Your task to perform on an android device: star an email in the gmail app Image 0: 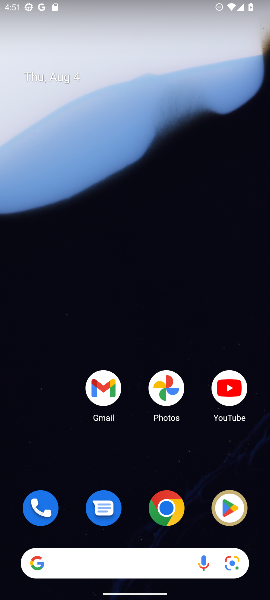
Step 0: drag from (118, 544) to (217, 103)
Your task to perform on an android device: star an email in the gmail app Image 1: 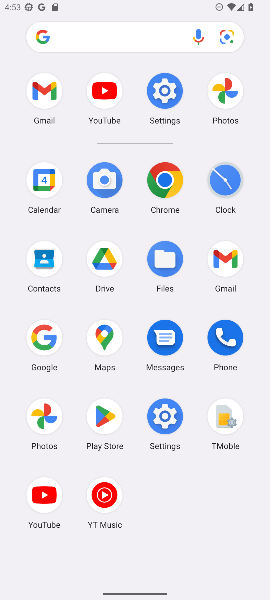
Step 1: click (163, 180)
Your task to perform on an android device: star an email in the gmail app Image 2: 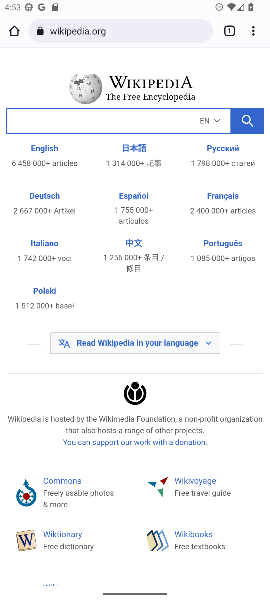
Step 2: click (95, 173)
Your task to perform on an android device: star an email in the gmail app Image 3: 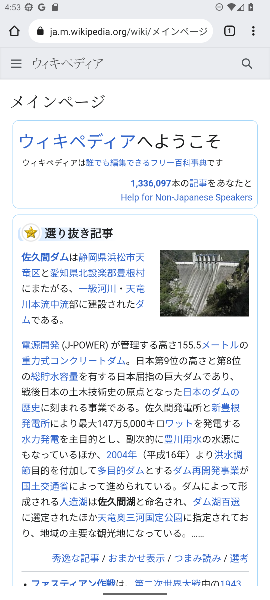
Step 3: drag from (62, 462) to (125, 69)
Your task to perform on an android device: star an email in the gmail app Image 4: 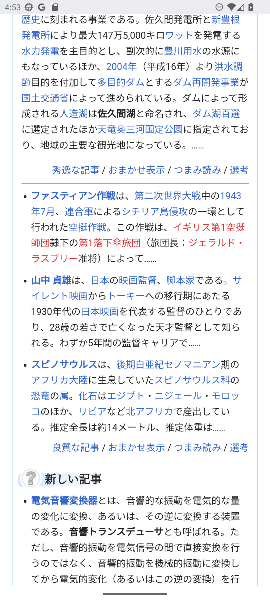
Step 4: drag from (115, 218) to (247, 573)
Your task to perform on an android device: star an email in the gmail app Image 5: 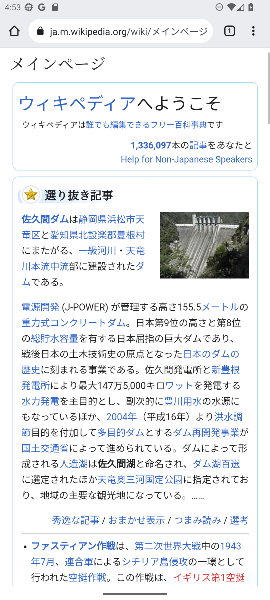
Step 5: drag from (117, 531) to (154, 99)
Your task to perform on an android device: star an email in the gmail app Image 6: 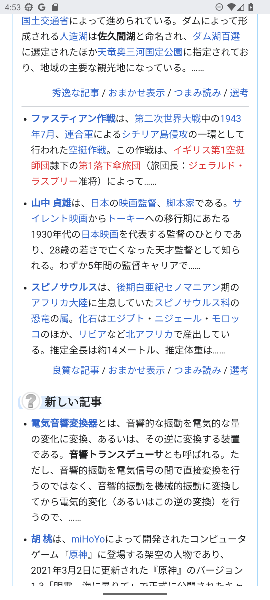
Step 6: drag from (184, 146) to (182, 593)
Your task to perform on an android device: star an email in the gmail app Image 7: 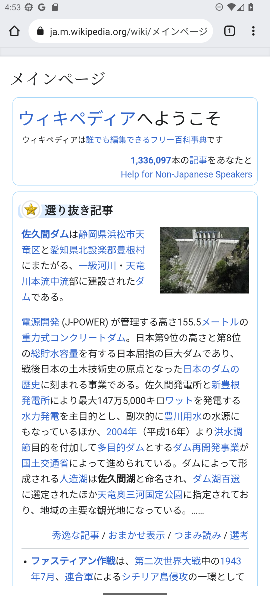
Step 7: click (152, 28)
Your task to perform on an android device: star an email in the gmail app Image 8: 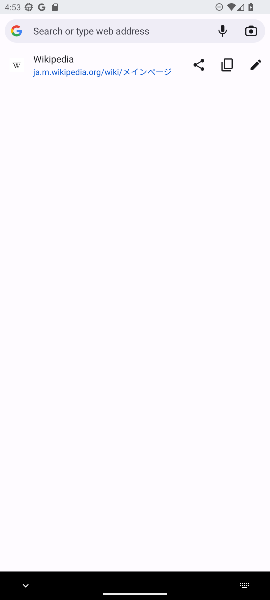
Step 8: press home button
Your task to perform on an android device: star an email in the gmail app Image 9: 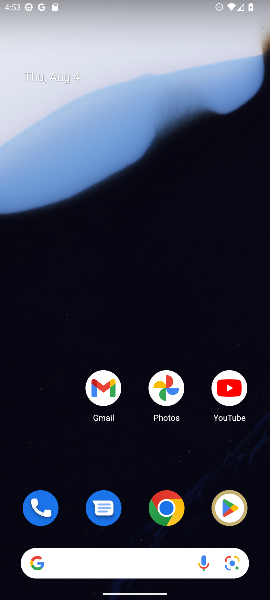
Step 9: drag from (123, 468) to (197, 105)
Your task to perform on an android device: star an email in the gmail app Image 10: 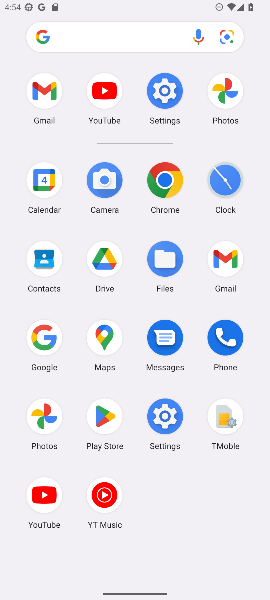
Step 10: click (215, 251)
Your task to perform on an android device: star an email in the gmail app Image 11: 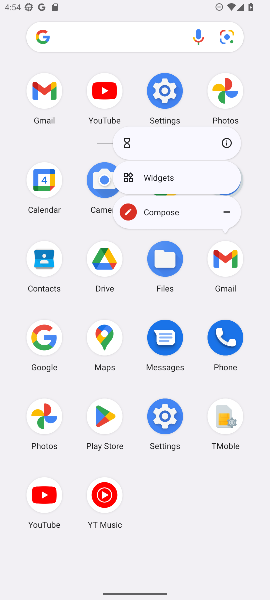
Step 11: click (230, 143)
Your task to perform on an android device: star an email in the gmail app Image 12: 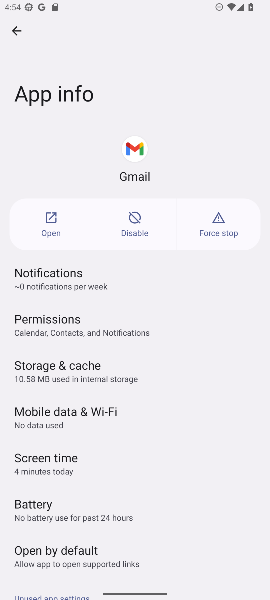
Step 12: click (49, 219)
Your task to perform on an android device: star an email in the gmail app Image 13: 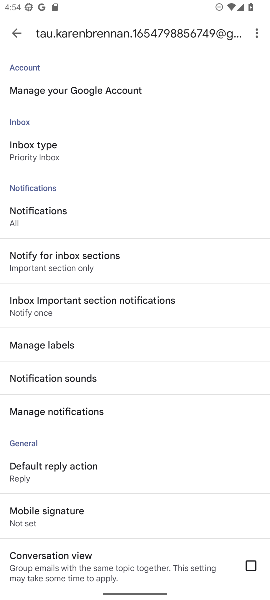
Step 13: drag from (119, 244) to (147, 521)
Your task to perform on an android device: star an email in the gmail app Image 14: 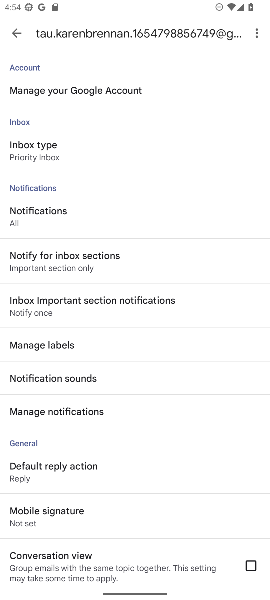
Step 14: click (3, 32)
Your task to perform on an android device: star an email in the gmail app Image 15: 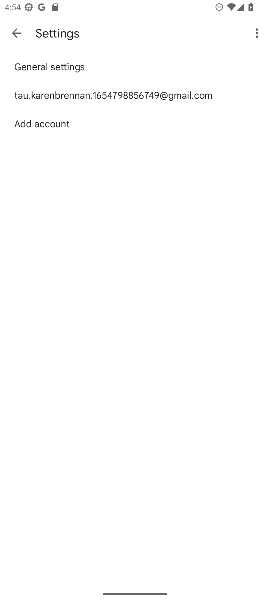
Step 15: click (15, 35)
Your task to perform on an android device: star an email in the gmail app Image 16: 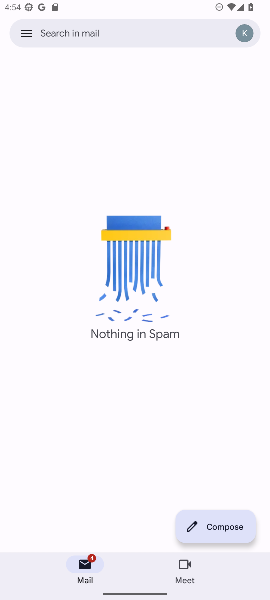
Step 16: drag from (57, 363) to (74, 270)
Your task to perform on an android device: star an email in the gmail app Image 17: 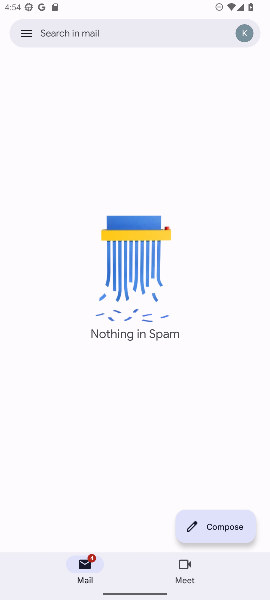
Step 17: click (18, 36)
Your task to perform on an android device: star an email in the gmail app Image 18: 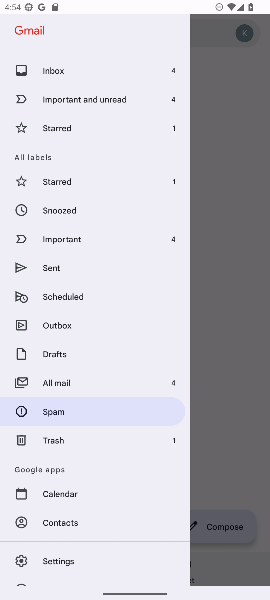
Step 18: click (63, 68)
Your task to perform on an android device: star an email in the gmail app Image 19: 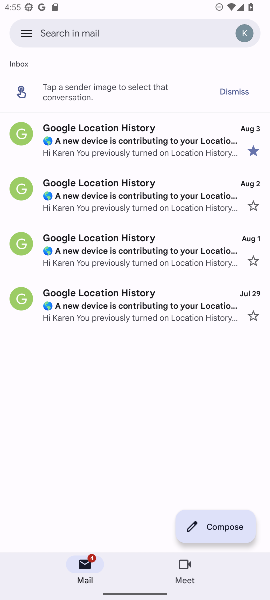
Step 19: drag from (112, 444) to (138, 284)
Your task to perform on an android device: star an email in the gmail app Image 20: 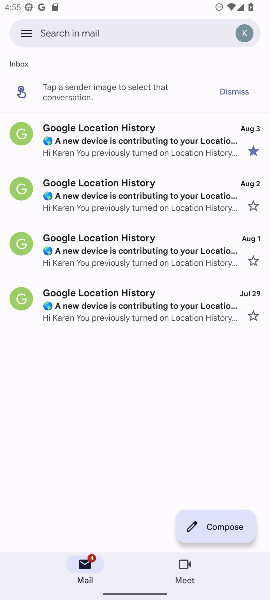
Step 20: click (251, 208)
Your task to perform on an android device: star an email in the gmail app Image 21: 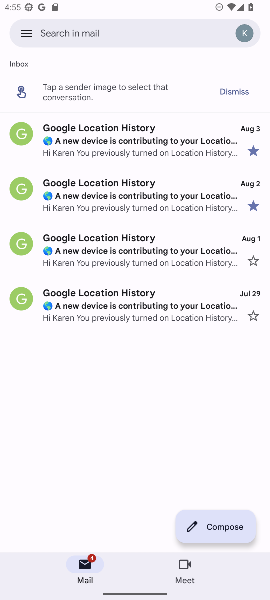
Step 21: task complete